Your task to perform on an android device: Open wifi settings Image 0: 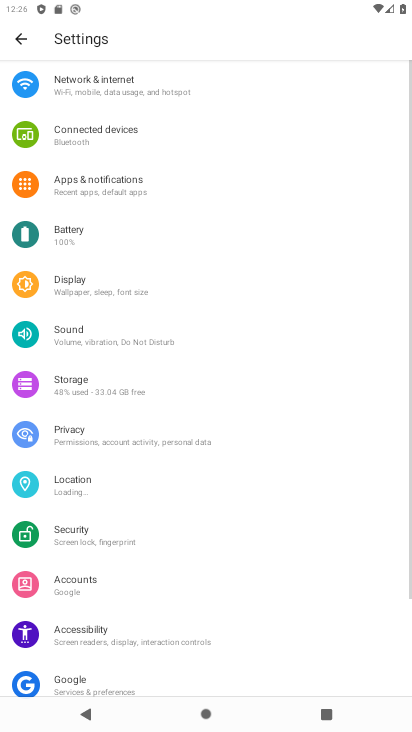
Step 0: press home button
Your task to perform on an android device: Open wifi settings Image 1: 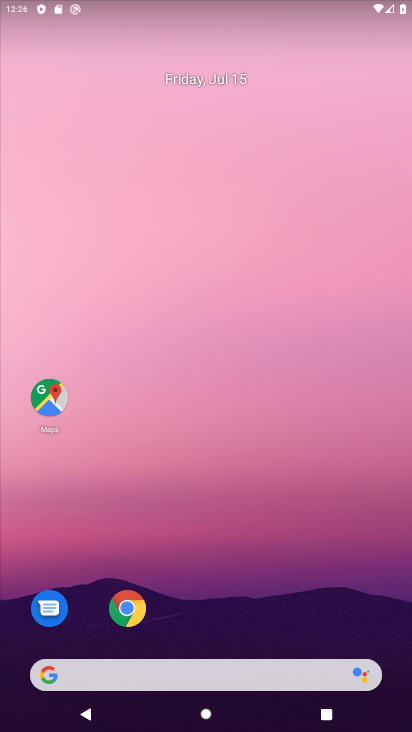
Step 1: drag from (96, 6) to (85, 380)
Your task to perform on an android device: Open wifi settings Image 2: 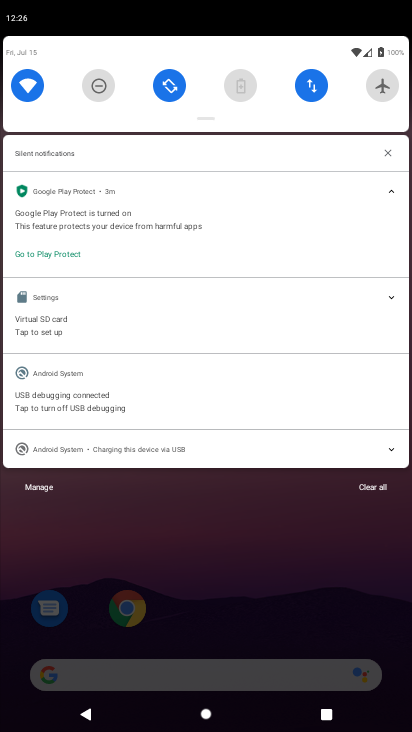
Step 2: click (28, 79)
Your task to perform on an android device: Open wifi settings Image 3: 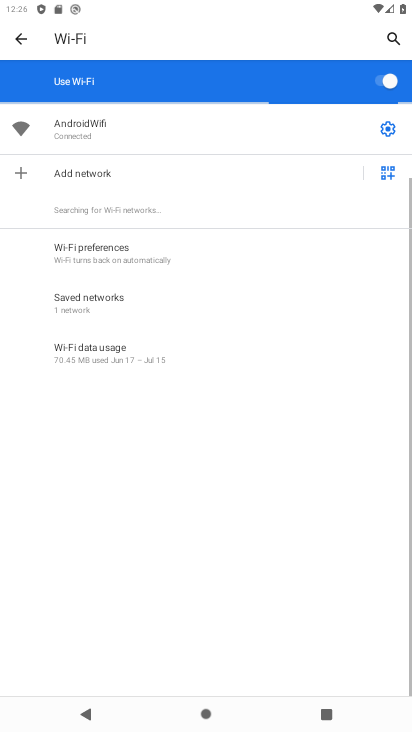
Step 3: task complete